Your task to perform on an android device: Do I have any events tomorrow? Image 0: 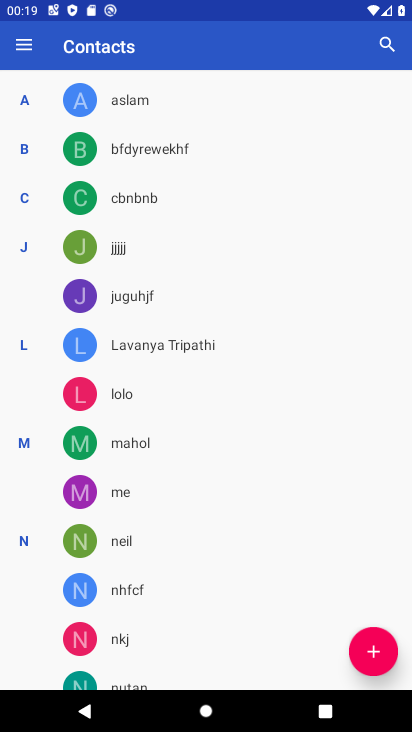
Step 0: press home button
Your task to perform on an android device: Do I have any events tomorrow? Image 1: 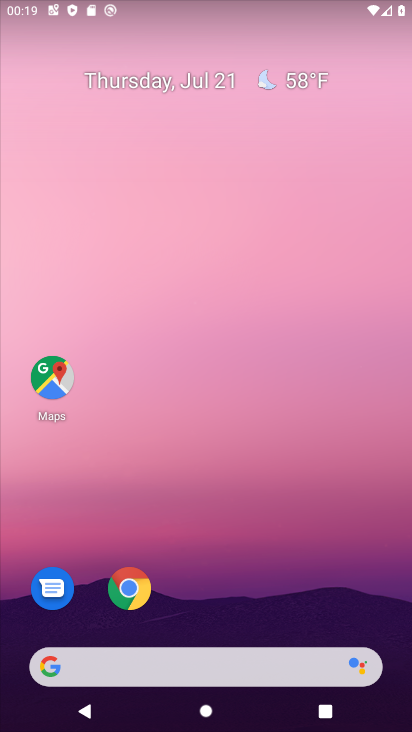
Step 1: drag from (242, 602) to (353, 4)
Your task to perform on an android device: Do I have any events tomorrow? Image 2: 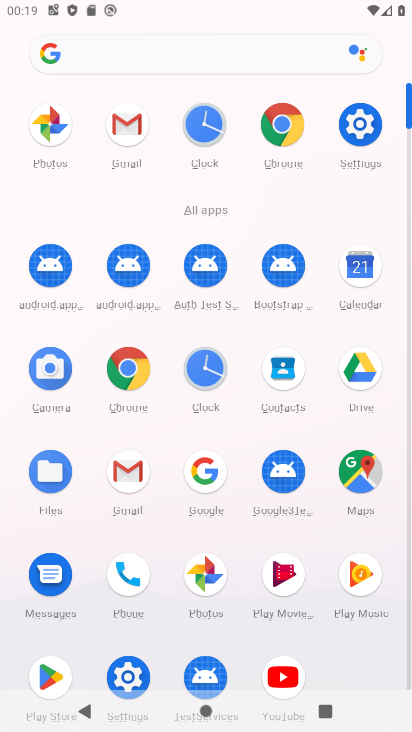
Step 2: click (363, 278)
Your task to perform on an android device: Do I have any events tomorrow? Image 3: 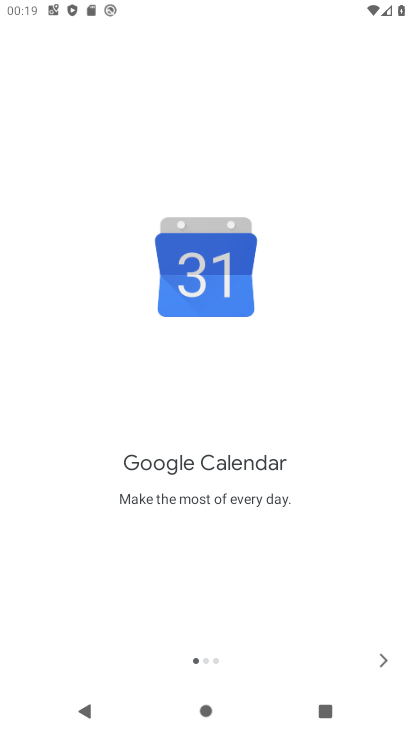
Step 3: click (376, 661)
Your task to perform on an android device: Do I have any events tomorrow? Image 4: 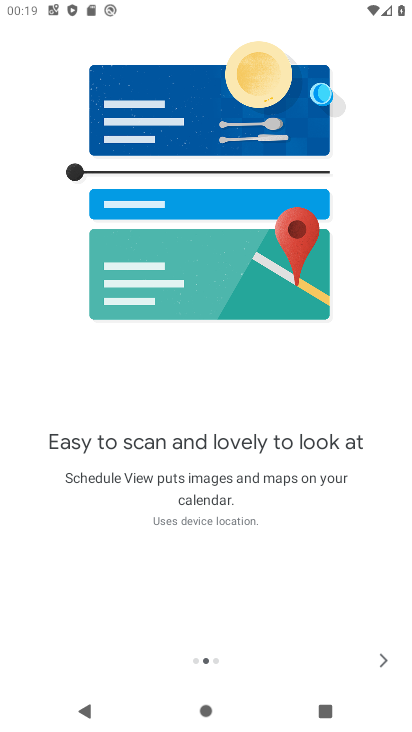
Step 4: click (377, 660)
Your task to perform on an android device: Do I have any events tomorrow? Image 5: 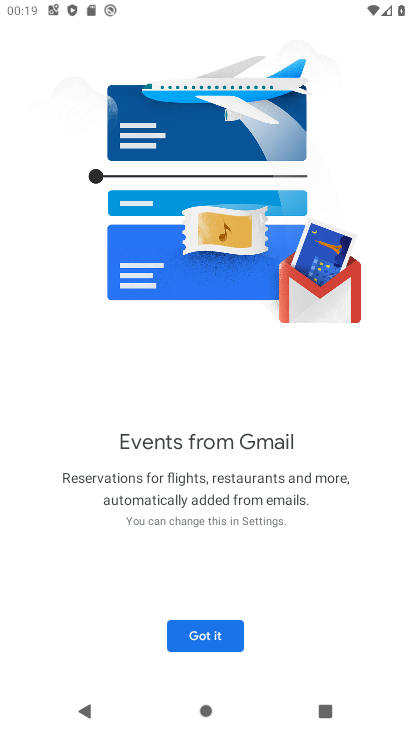
Step 5: click (220, 641)
Your task to perform on an android device: Do I have any events tomorrow? Image 6: 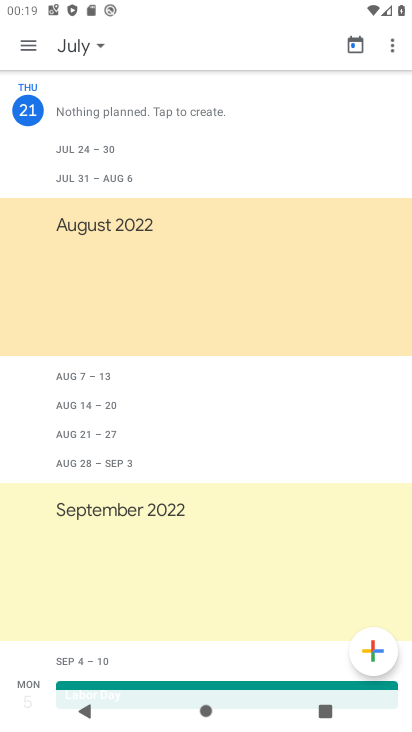
Step 6: click (26, 40)
Your task to perform on an android device: Do I have any events tomorrow? Image 7: 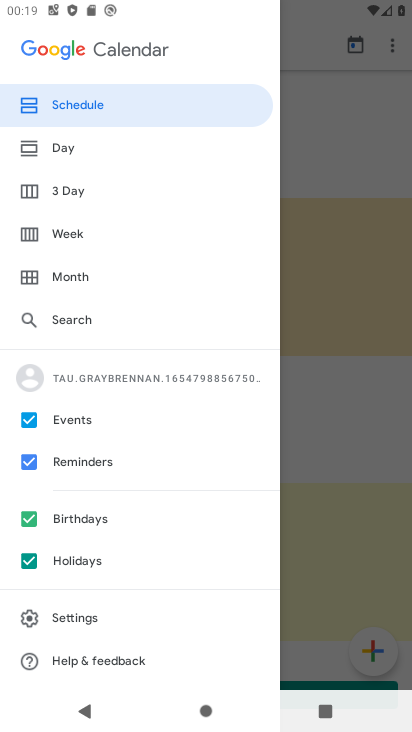
Step 7: click (71, 472)
Your task to perform on an android device: Do I have any events tomorrow? Image 8: 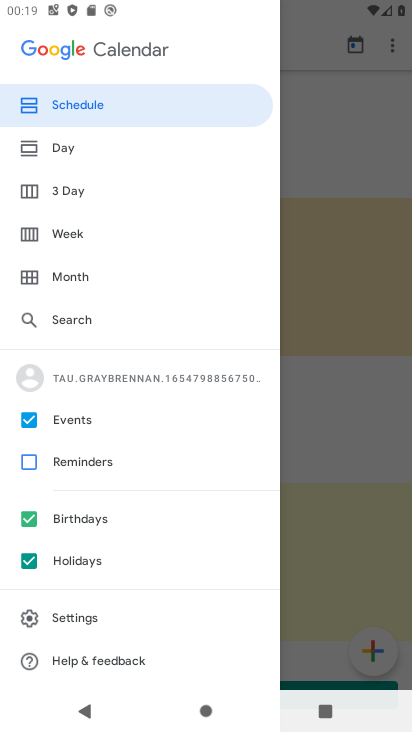
Step 8: click (72, 525)
Your task to perform on an android device: Do I have any events tomorrow? Image 9: 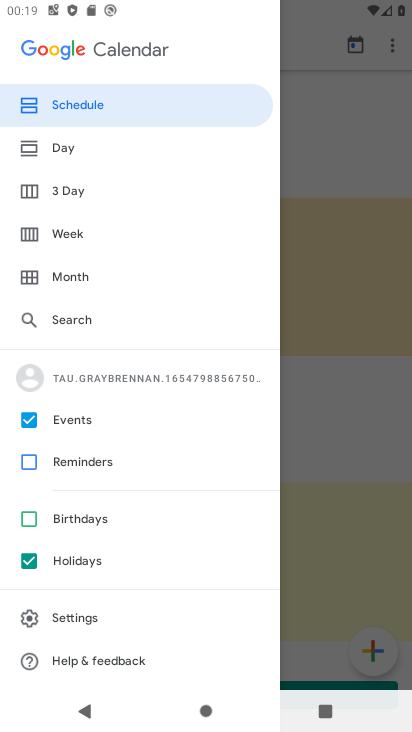
Step 9: click (74, 565)
Your task to perform on an android device: Do I have any events tomorrow? Image 10: 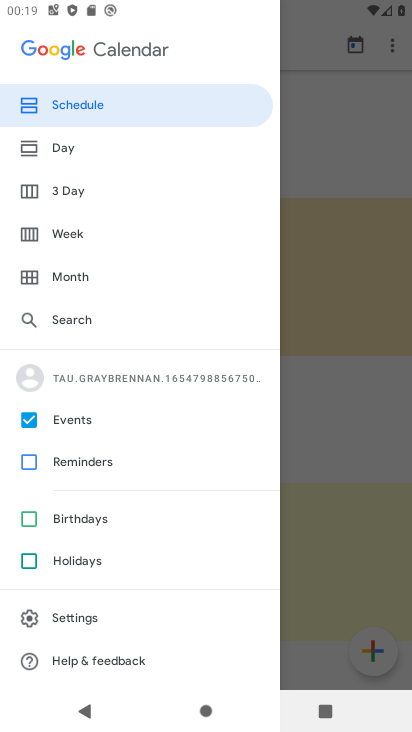
Step 10: click (85, 236)
Your task to perform on an android device: Do I have any events tomorrow? Image 11: 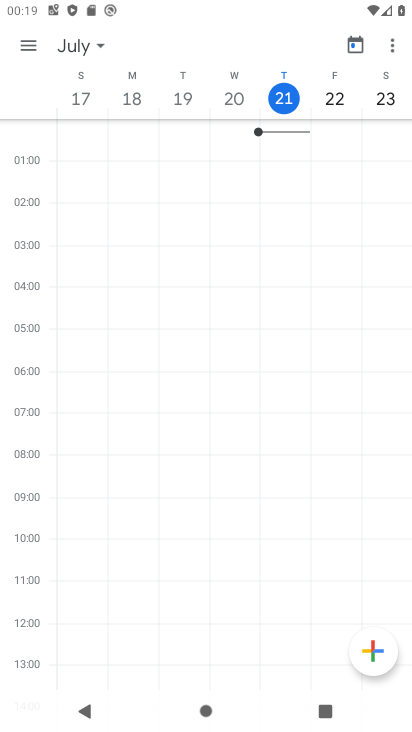
Step 11: click (43, 48)
Your task to perform on an android device: Do I have any events tomorrow? Image 12: 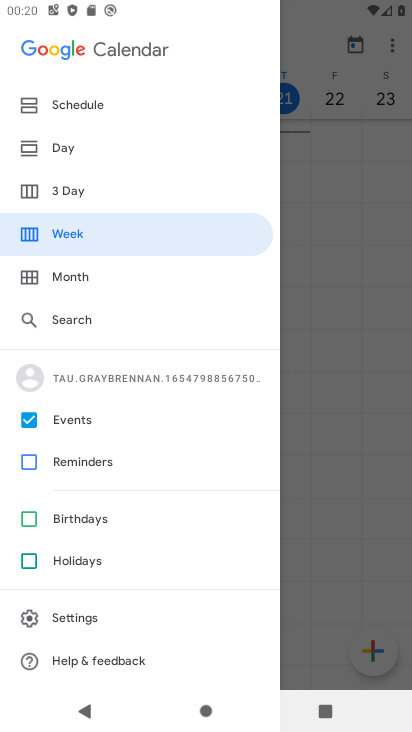
Step 12: click (73, 192)
Your task to perform on an android device: Do I have any events tomorrow? Image 13: 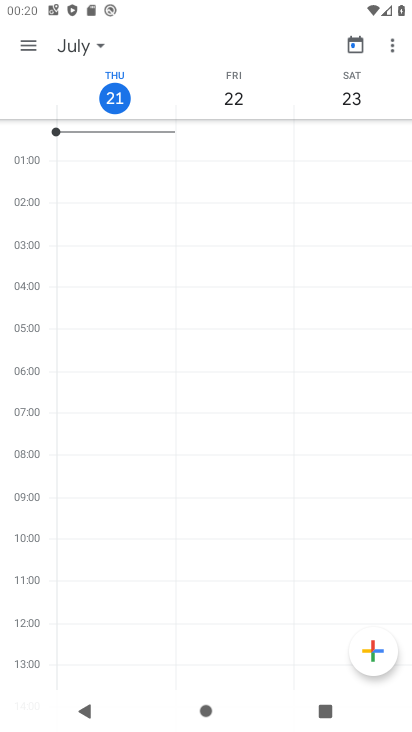
Step 13: task complete